Your task to perform on an android device: Open the calendar and show me this week's events? Image 0: 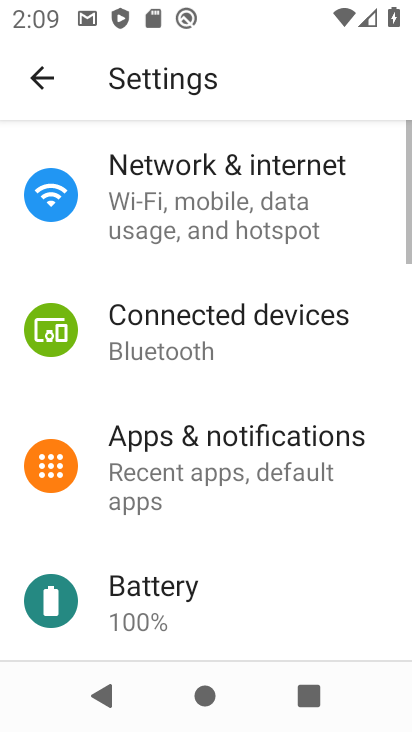
Step 0: press home button
Your task to perform on an android device: Open the calendar and show me this week's events? Image 1: 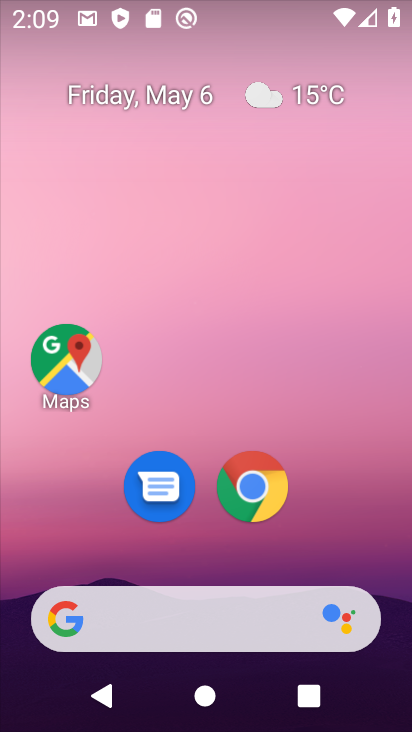
Step 1: drag from (343, 497) to (372, 0)
Your task to perform on an android device: Open the calendar and show me this week's events? Image 2: 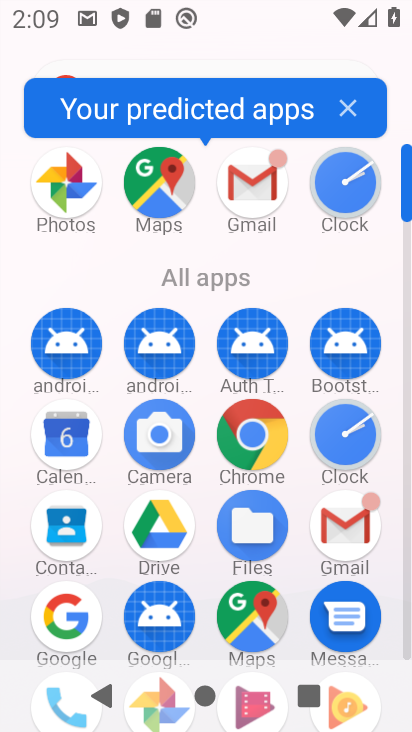
Step 2: click (65, 434)
Your task to perform on an android device: Open the calendar and show me this week's events? Image 3: 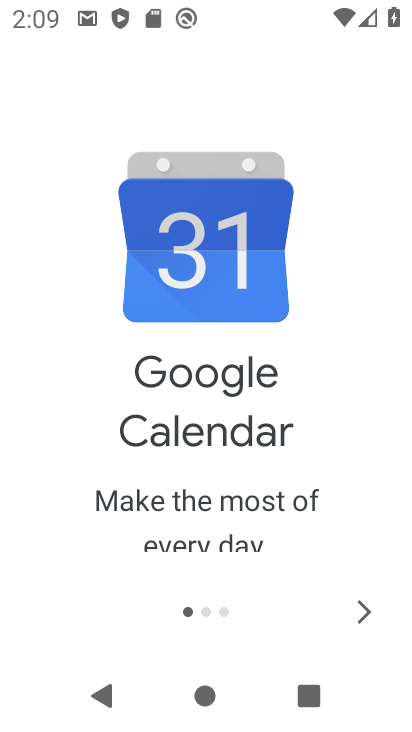
Step 3: click (362, 610)
Your task to perform on an android device: Open the calendar and show me this week's events? Image 4: 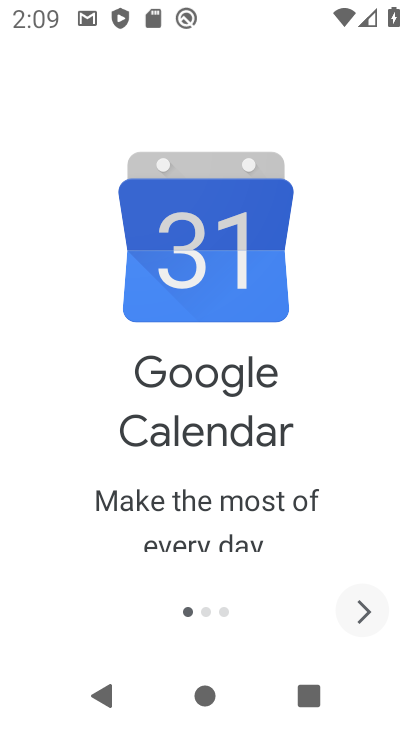
Step 4: click (362, 610)
Your task to perform on an android device: Open the calendar and show me this week's events? Image 5: 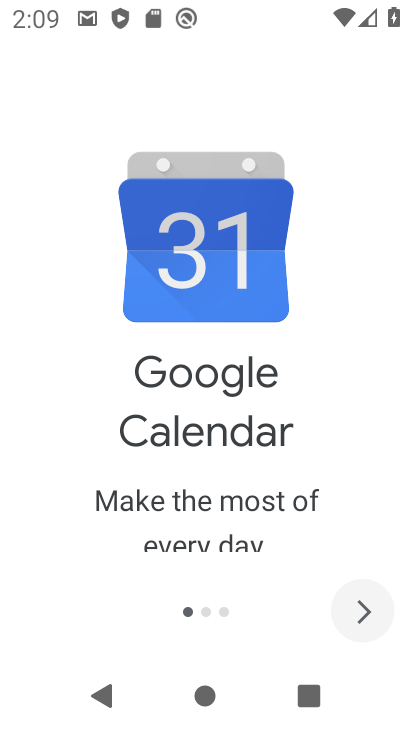
Step 5: click (362, 610)
Your task to perform on an android device: Open the calendar and show me this week's events? Image 6: 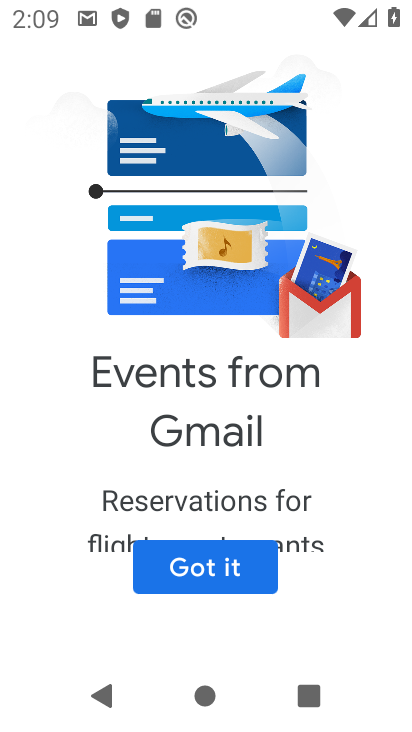
Step 6: click (210, 566)
Your task to perform on an android device: Open the calendar and show me this week's events? Image 7: 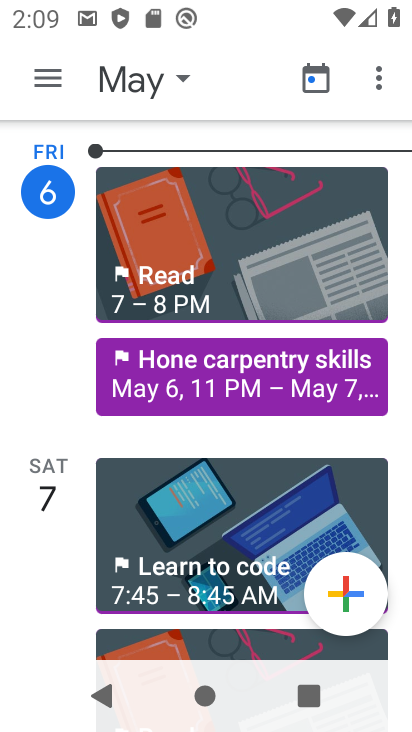
Step 7: click (56, 85)
Your task to perform on an android device: Open the calendar and show me this week's events? Image 8: 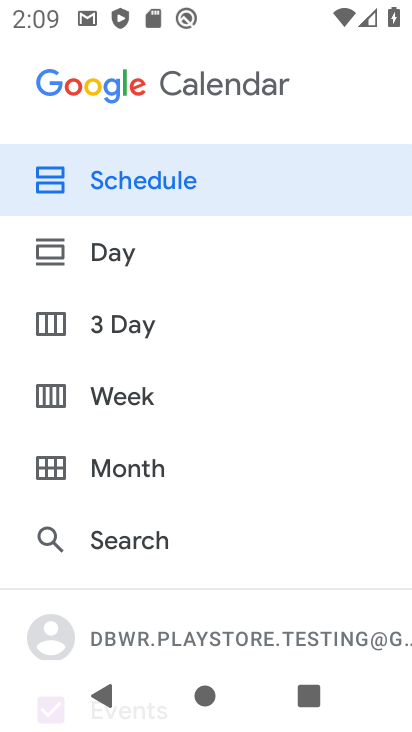
Step 8: click (123, 394)
Your task to perform on an android device: Open the calendar and show me this week's events? Image 9: 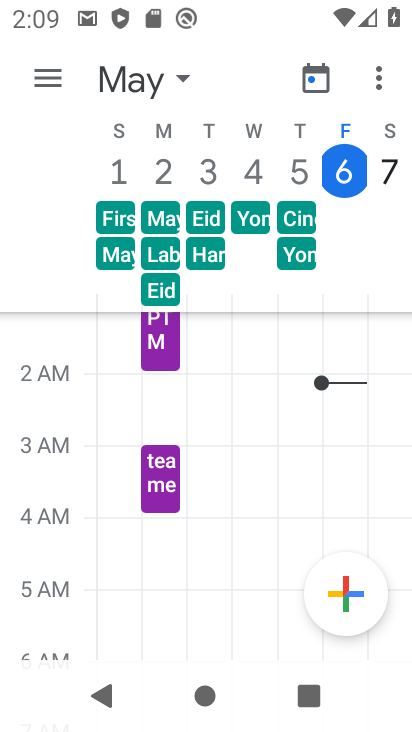
Step 9: task complete